Your task to perform on an android device: Set the phone to "Do not disturb". Image 0: 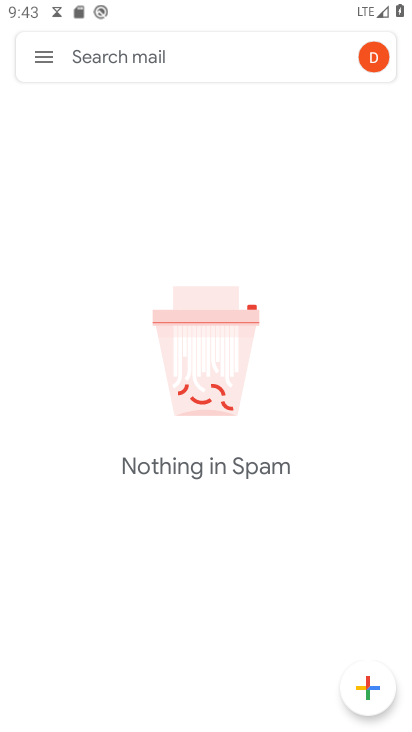
Step 0: press home button
Your task to perform on an android device: Set the phone to "Do not disturb". Image 1: 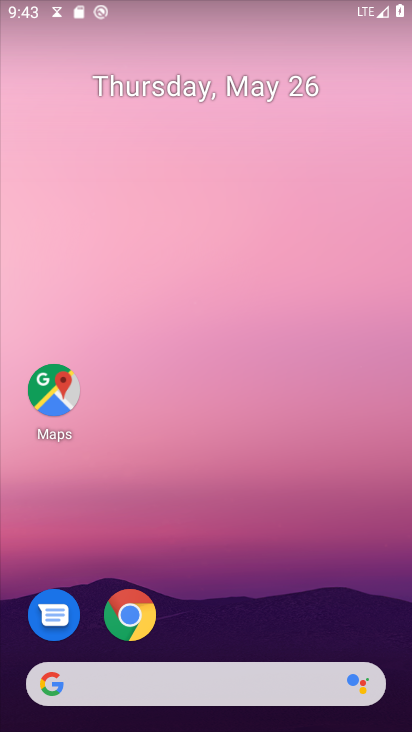
Step 1: drag from (97, 17) to (176, 121)
Your task to perform on an android device: Set the phone to "Do not disturb". Image 2: 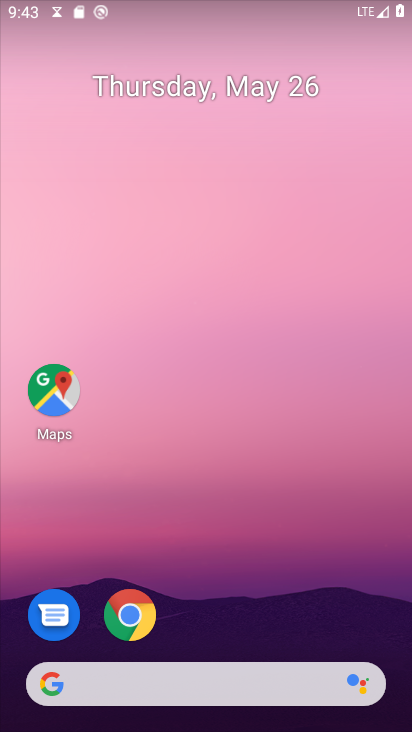
Step 2: drag from (166, 7) to (197, 465)
Your task to perform on an android device: Set the phone to "Do not disturb". Image 3: 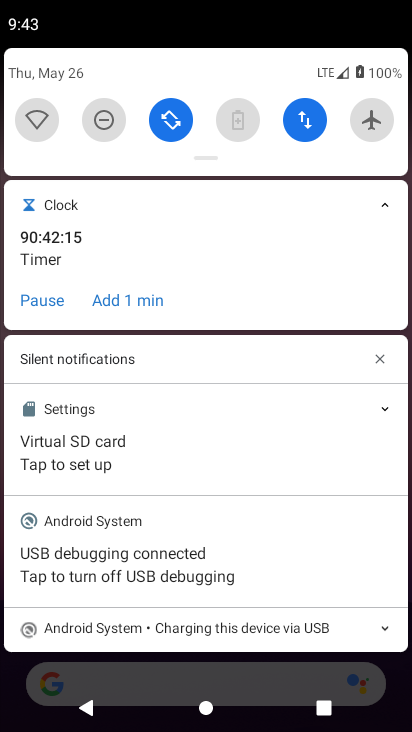
Step 3: click (100, 114)
Your task to perform on an android device: Set the phone to "Do not disturb". Image 4: 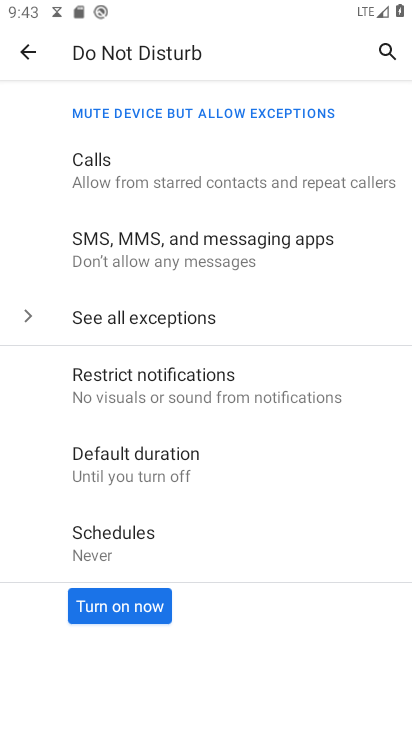
Step 4: click (100, 598)
Your task to perform on an android device: Set the phone to "Do not disturb". Image 5: 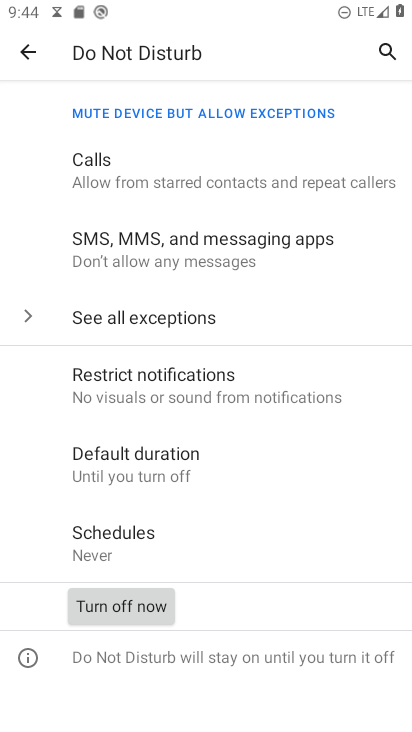
Step 5: task complete